Your task to perform on an android device: turn off translation in the chrome app Image 0: 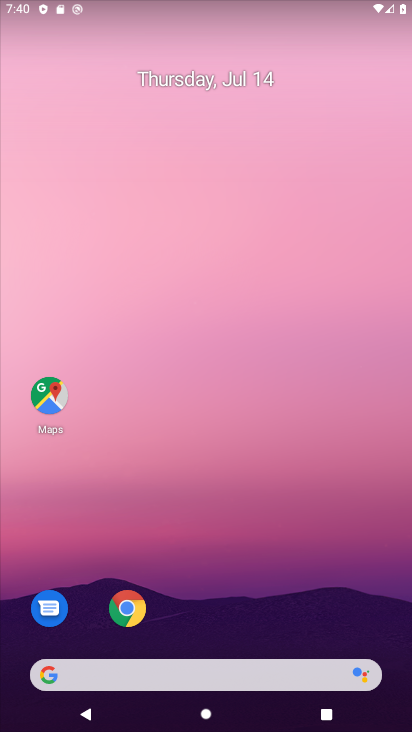
Step 0: click (131, 609)
Your task to perform on an android device: turn off translation in the chrome app Image 1: 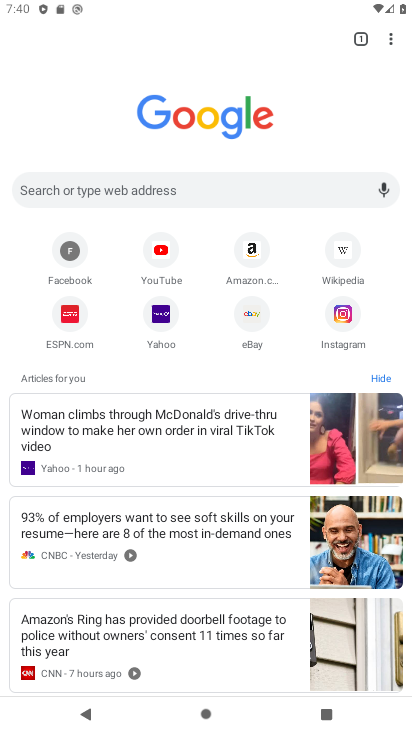
Step 1: click (383, 38)
Your task to perform on an android device: turn off translation in the chrome app Image 2: 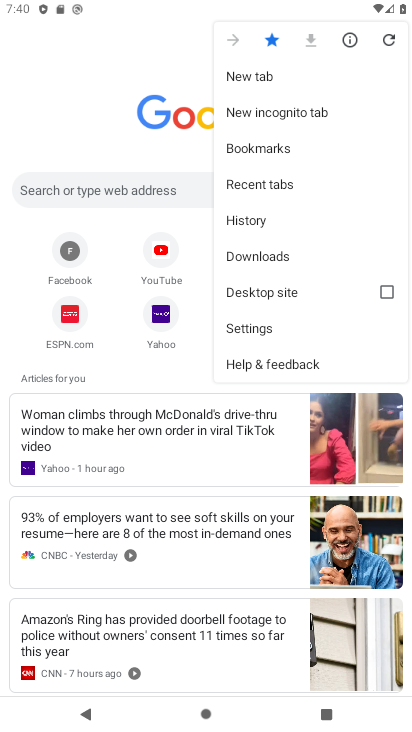
Step 2: click (259, 328)
Your task to perform on an android device: turn off translation in the chrome app Image 3: 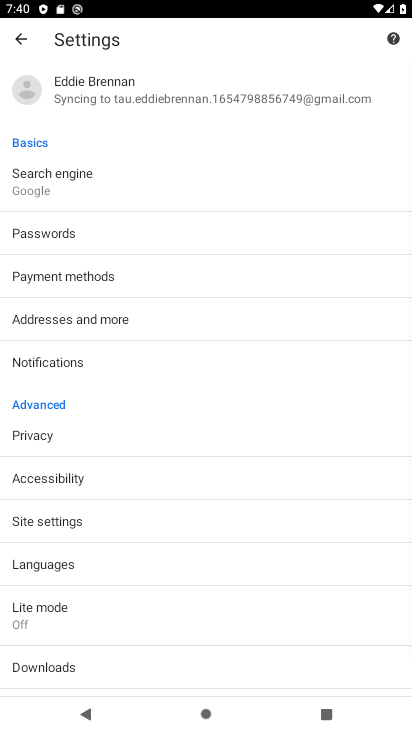
Step 3: click (47, 571)
Your task to perform on an android device: turn off translation in the chrome app Image 4: 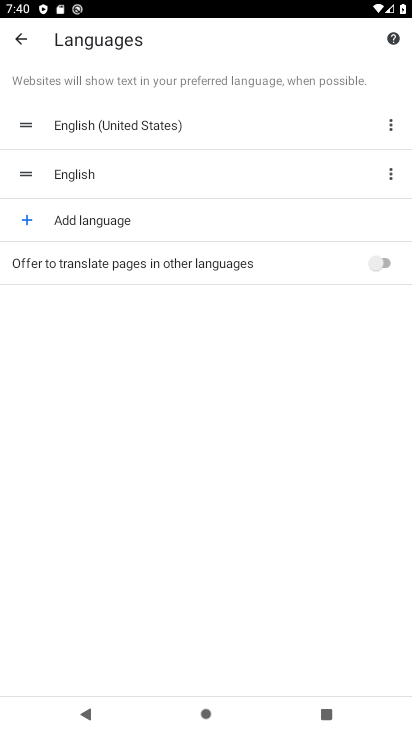
Step 4: task complete